Your task to perform on an android device: remove spam from my inbox in the gmail app Image 0: 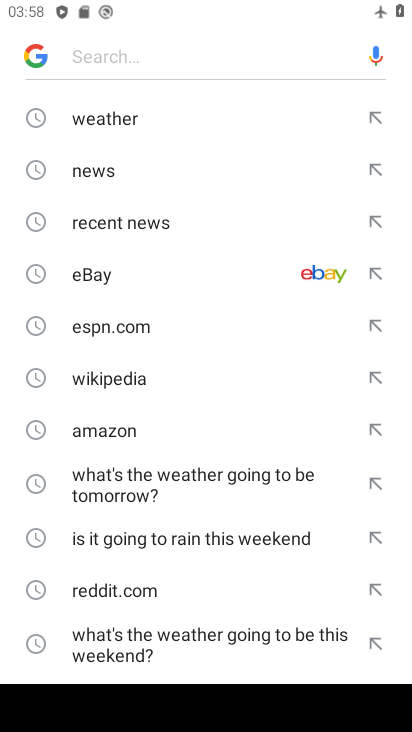
Step 0: press home button
Your task to perform on an android device: remove spam from my inbox in the gmail app Image 1: 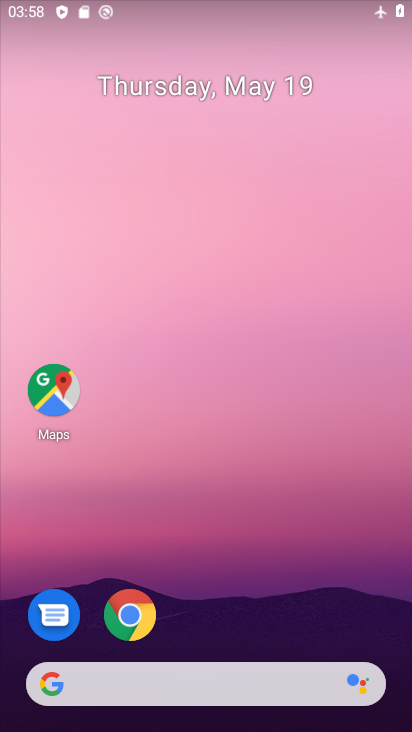
Step 1: drag from (268, 636) to (279, 5)
Your task to perform on an android device: remove spam from my inbox in the gmail app Image 2: 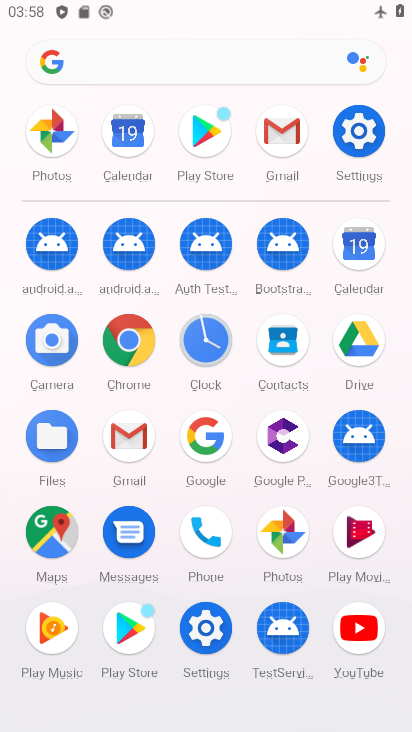
Step 2: click (282, 130)
Your task to perform on an android device: remove spam from my inbox in the gmail app Image 3: 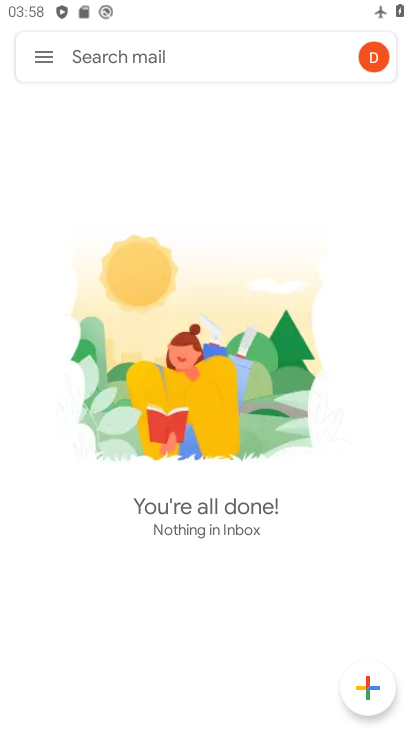
Step 3: click (46, 57)
Your task to perform on an android device: remove spam from my inbox in the gmail app Image 4: 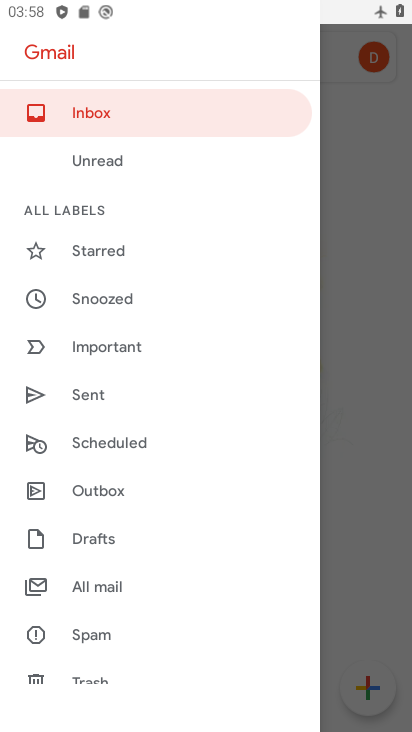
Step 4: click (90, 636)
Your task to perform on an android device: remove spam from my inbox in the gmail app Image 5: 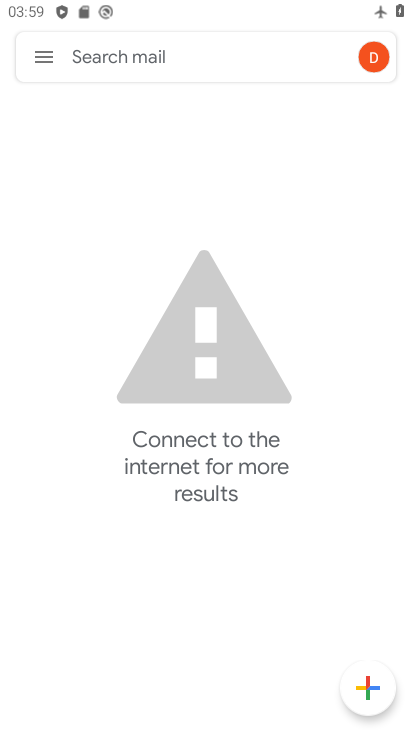
Step 5: task complete